Your task to perform on an android device: allow notifications from all sites in the chrome app Image 0: 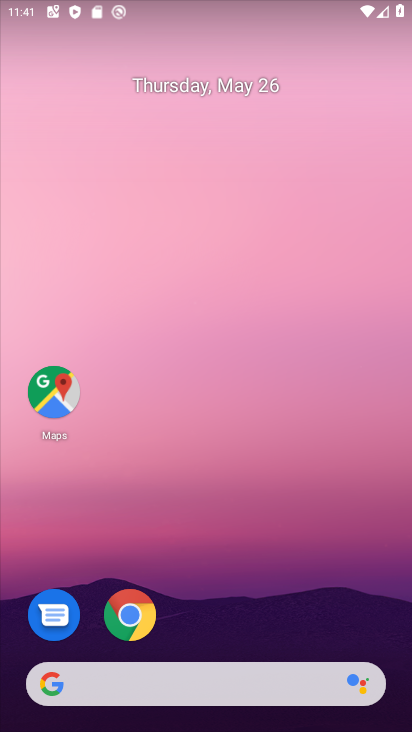
Step 0: drag from (248, 624) to (107, 64)
Your task to perform on an android device: allow notifications from all sites in the chrome app Image 1: 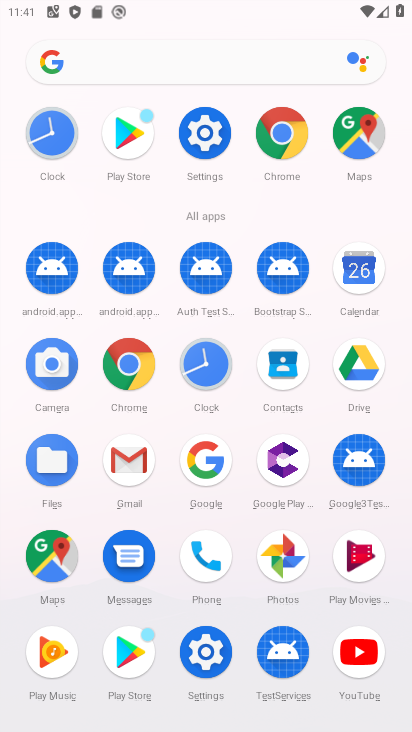
Step 1: click (281, 146)
Your task to perform on an android device: allow notifications from all sites in the chrome app Image 2: 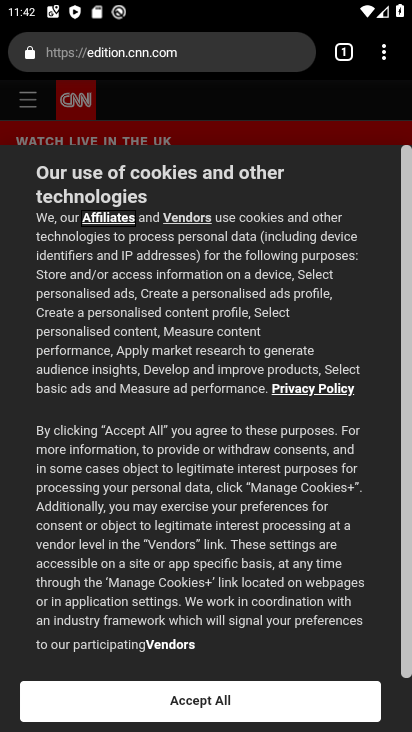
Step 2: click (386, 62)
Your task to perform on an android device: allow notifications from all sites in the chrome app Image 3: 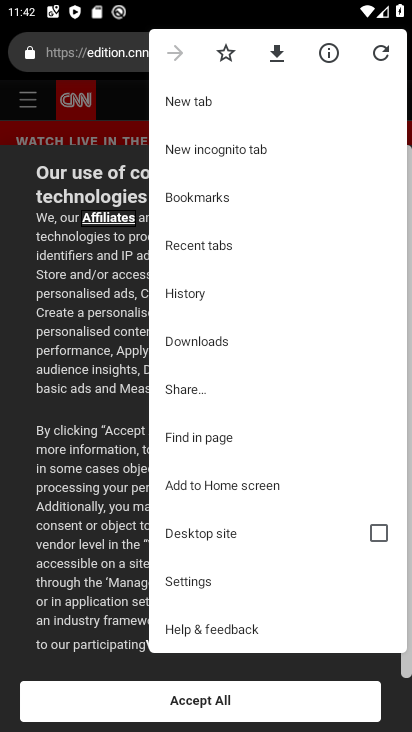
Step 3: click (221, 583)
Your task to perform on an android device: allow notifications from all sites in the chrome app Image 4: 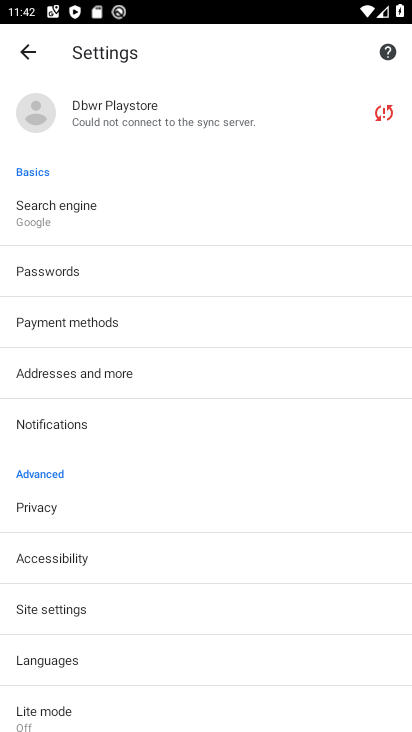
Step 4: drag from (114, 674) to (102, 227)
Your task to perform on an android device: allow notifications from all sites in the chrome app Image 5: 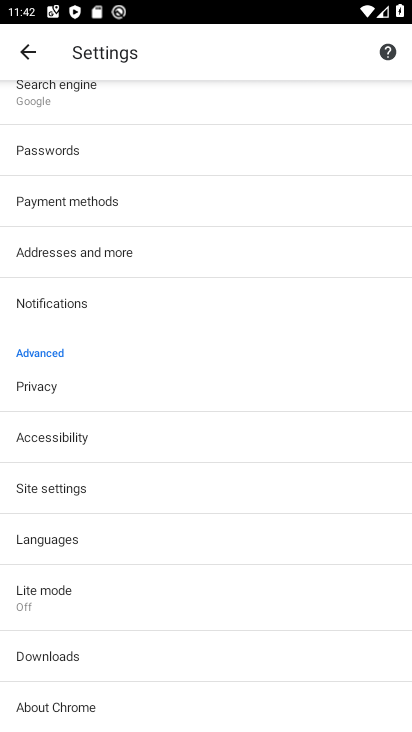
Step 5: click (124, 495)
Your task to perform on an android device: allow notifications from all sites in the chrome app Image 6: 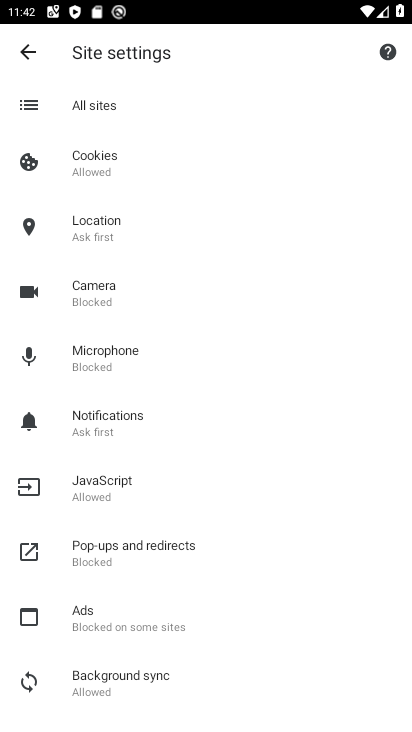
Step 6: click (143, 422)
Your task to perform on an android device: allow notifications from all sites in the chrome app Image 7: 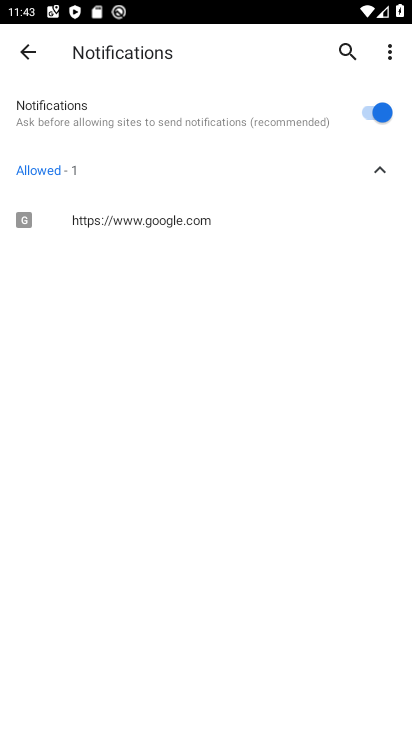
Step 7: task complete